Your task to perform on an android device: change alarm snooze length Image 0: 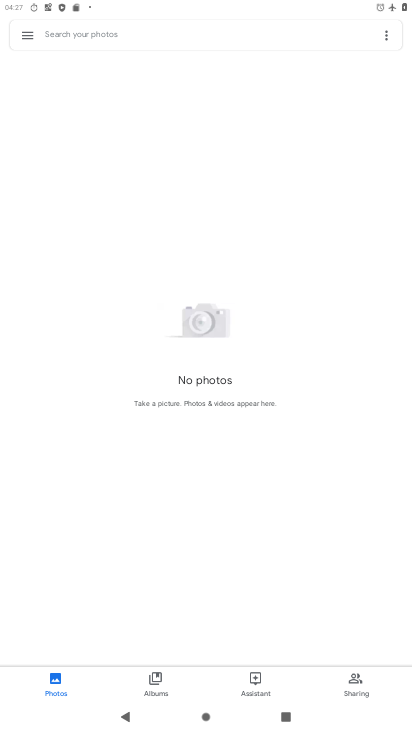
Step 0: press home button
Your task to perform on an android device: change alarm snooze length Image 1: 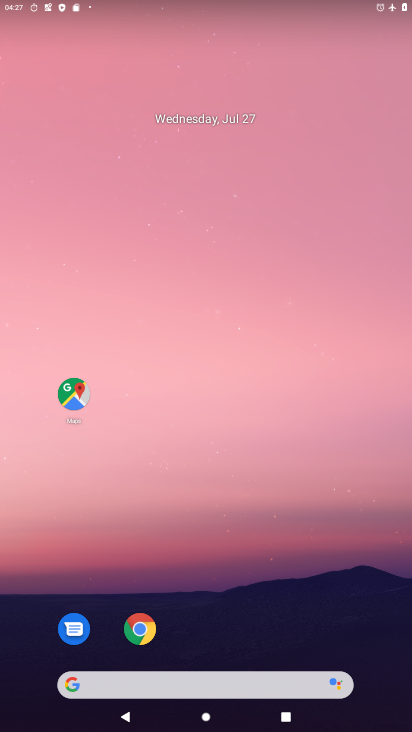
Step 1: drag from (318, 617) to (207, 170)
Your task to perform on an android device: change alarm snooze length Image 2: 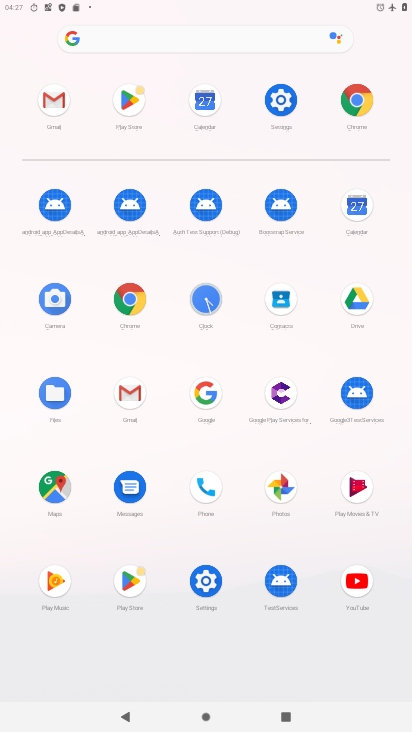
Step 2: click (211, 295)
Your task to perform on an android device: change alarm snooze length Image 3: 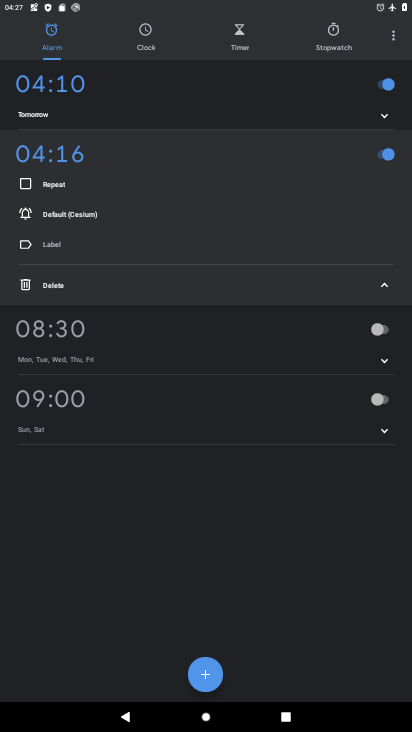
Step 3: click (391, 39)
Your task to perform on an android device: change alarm snooze length Image 4: 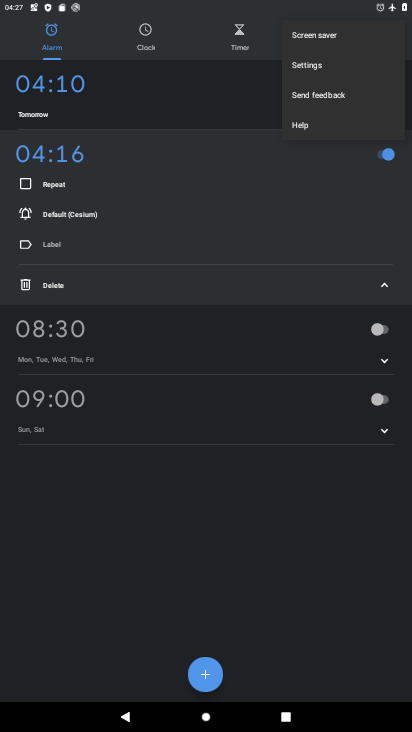
Step 4: click (328, 63)
Your task to perform on an android device: change alarm snooze length Image 5: 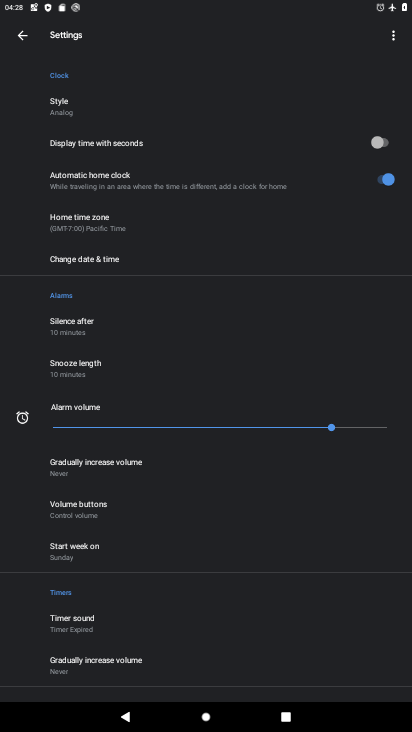
Step 5: click (83, 371)
Your task to perform on an android device: change alarm snooze length Image 6: 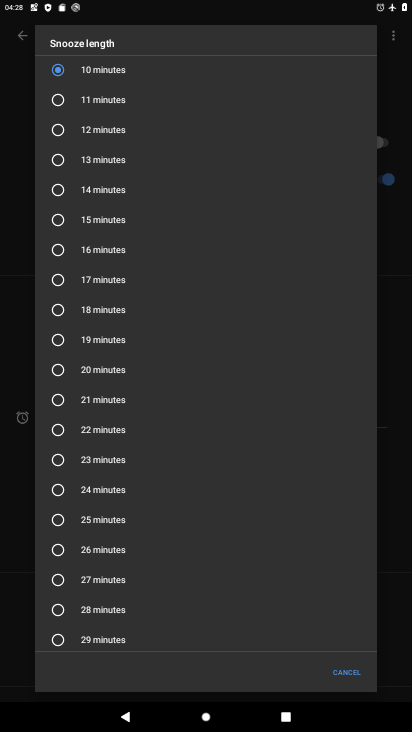
Step 6: click (120, 99)
Your task to perform on an android device: change alarm snooze length Image 7: 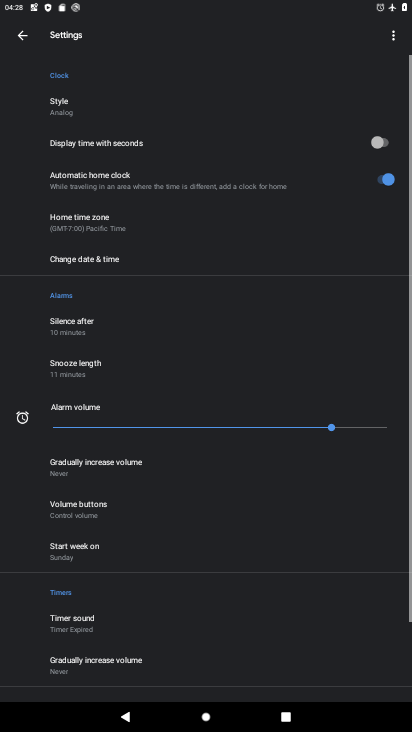
Step 7: task complete